Your task to perform on an android device: See recent photos Image 0: 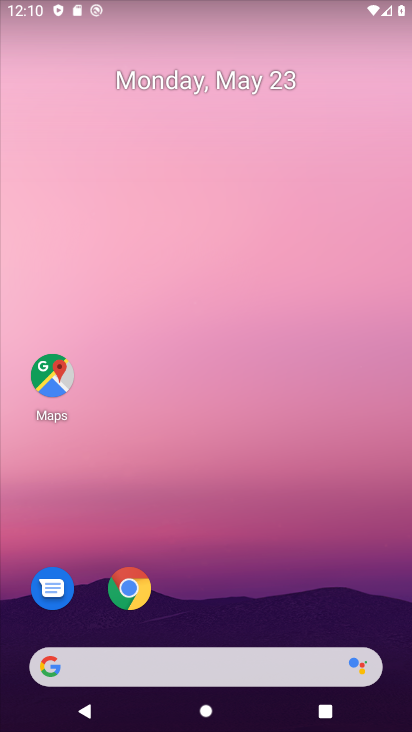
Step 0: drag from (221, 675) to (221, 202)
Your task to perform on an android device: See recent photos Image 1: 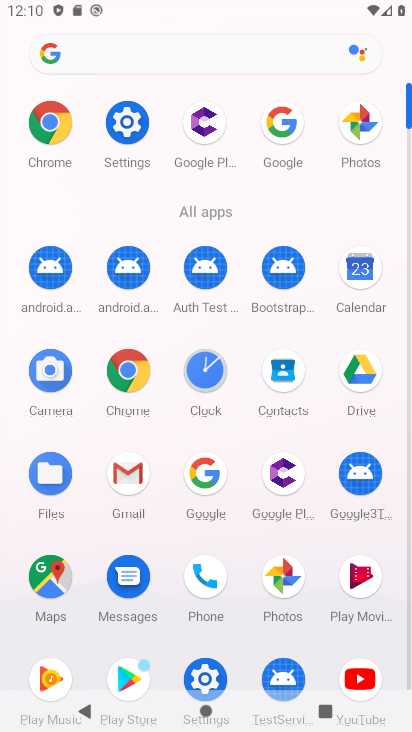
Step 1: click (280, 576)
Your task to perform on an android device: See recent photos Image 2: 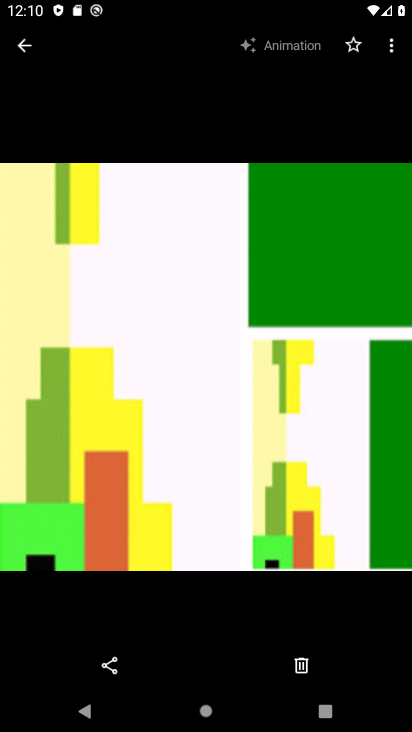
Step 2: task complete